Your task to perform on an android device: Do I have any events today? Image 0: 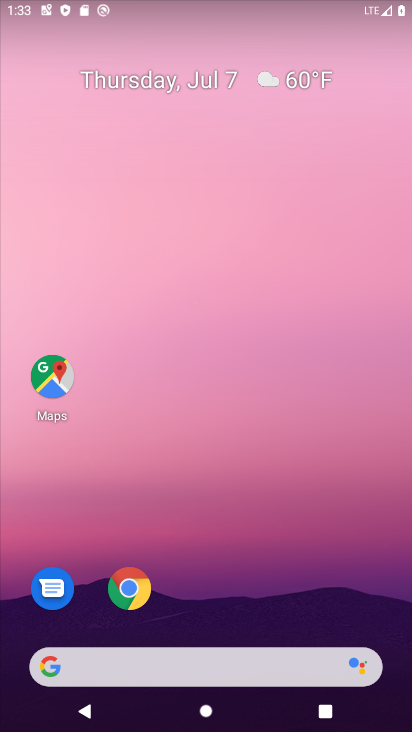
Step 0: drag from (213, 618) to (217, 307)
Your task to perform on an android device: Do I have any events today? Image 1: 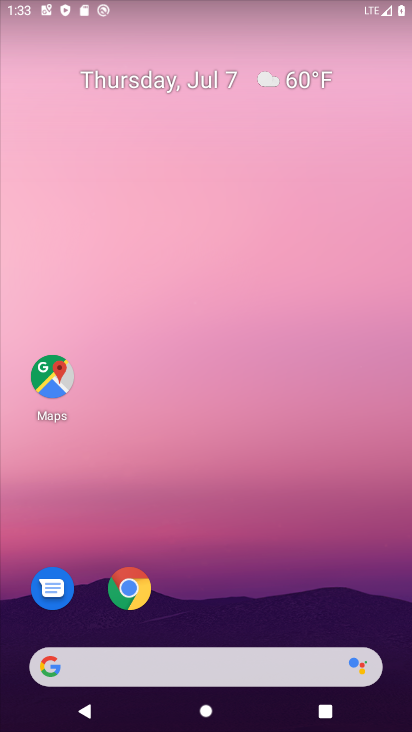
Step 1: drag from (220, 616) to (232, 290)
Your task to perform on an android device: Do I have any events today? Image 2: 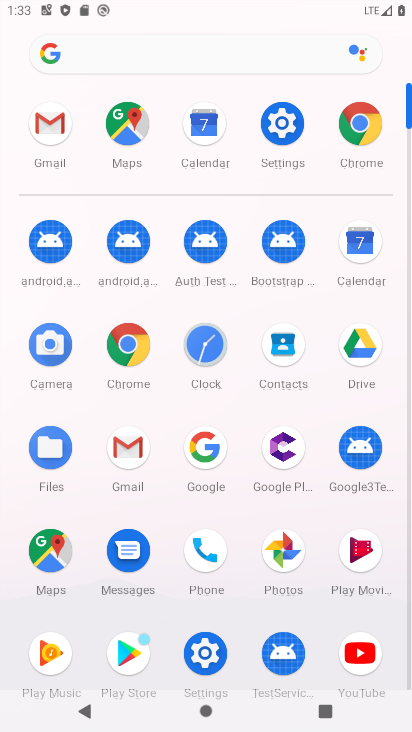
Step 2: click (347, 239)
Your task to perform on an android device: Do I have any events today? Image 3: 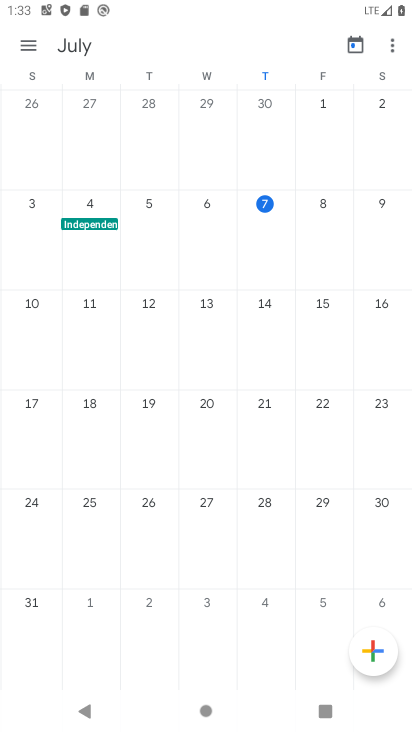
Step 3: click (257, 216)
Your task to perform on an android device: Do I have any events today? Image 4: 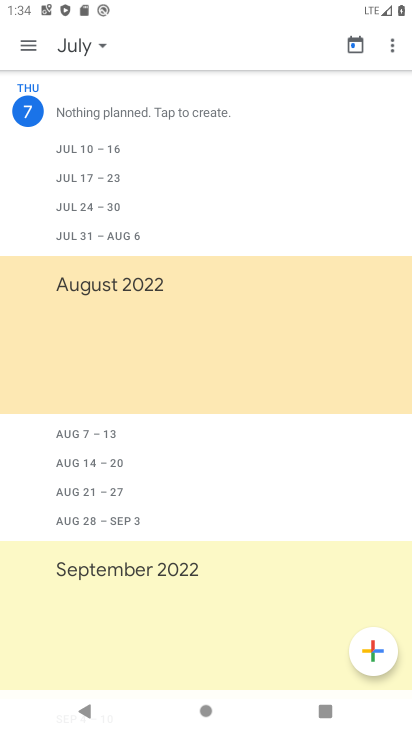
Step 4: task complete